Your task to perform on an android device: toggle show notifications on the lock screen Image 0: 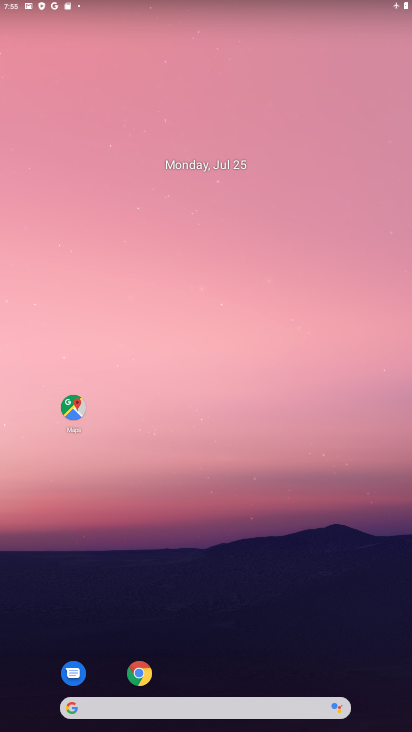
Step 0: drag from (177, 677) to (175, 90)
Your task to perform on an android device: toggle show notifications on the lock screen Image 1: 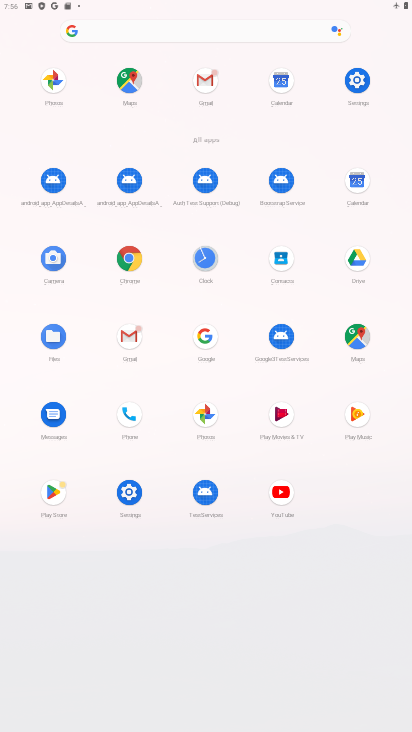
Step 1: click (118, 479)
Your task to perform on an android device: toggle show notifications on the lock screen Image 2: 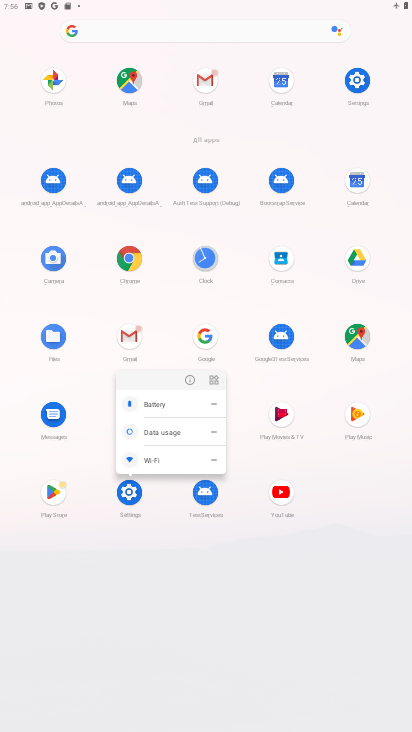
Step 2: click (184, 380)
Your task to perform on an android device: toggle show notifications on the lock screen Image 3: 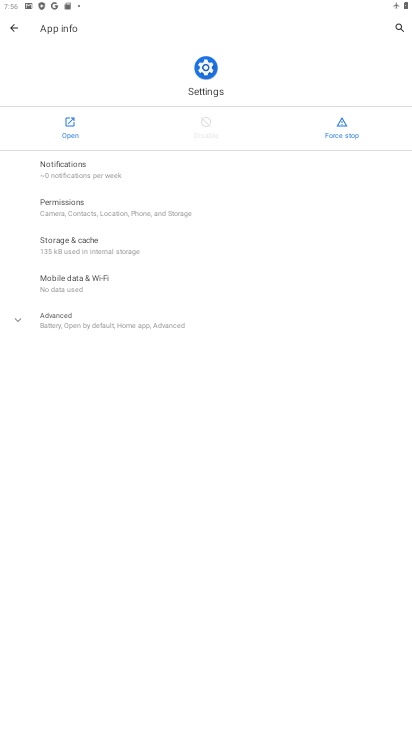
Step 3: click (50, 109)
Your task to perform on an android device: toggle show notifications on the lock screen Image 4: 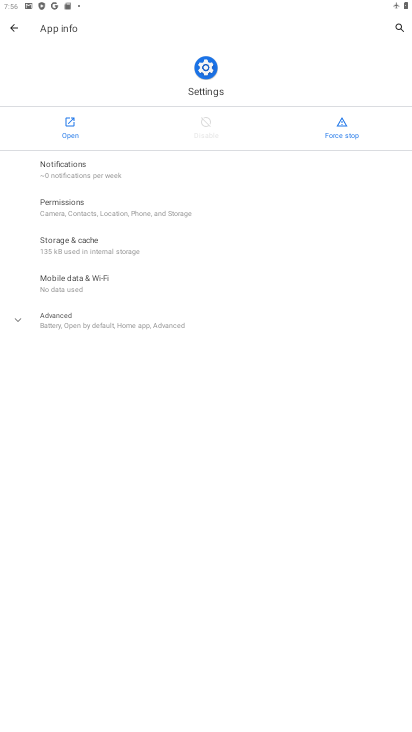
Step 4: click (49, 110)
Your task to perform on an android device: toggle show notifications on the lock screen Image 5: 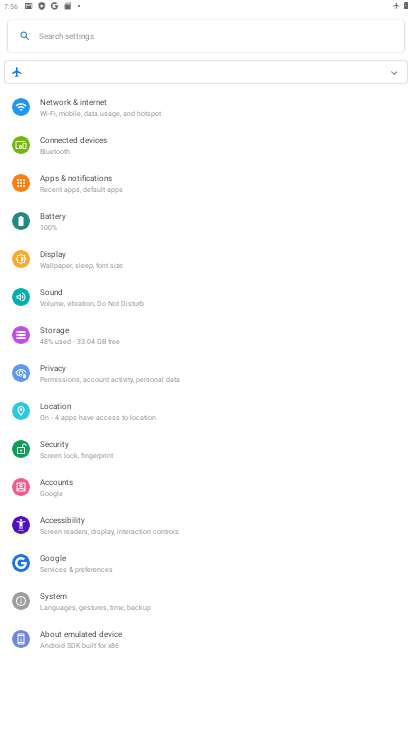
Step 5: click (82, 187)
Your task to perform on an android device: toggle show notifications on the lock screen Image 6: 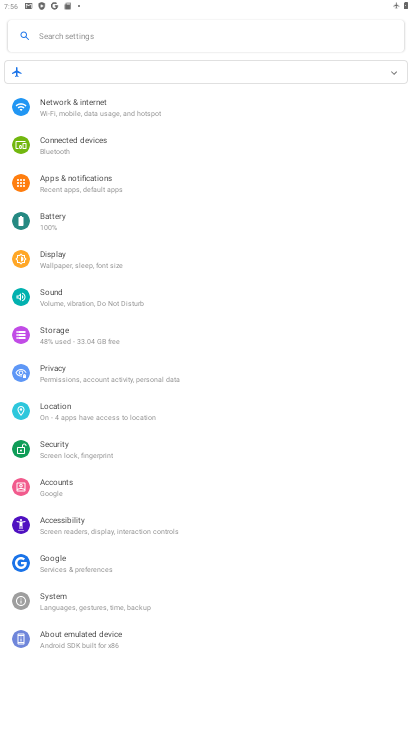
Step 6: click (82, 187)
Your task to perform on an android device: toggle show notifications on the lock screen Image 7: 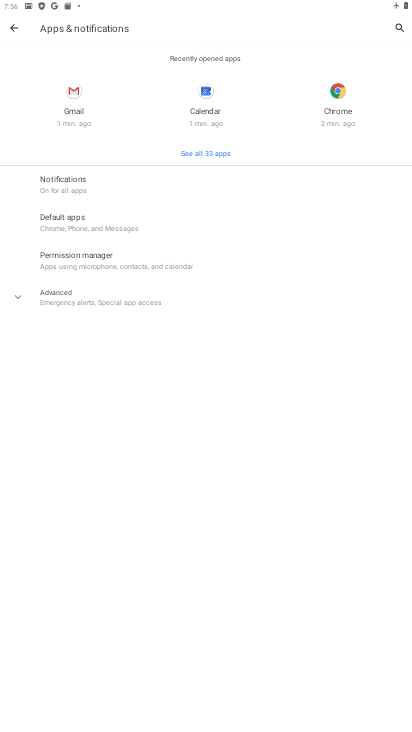
Step 7: click (113, 178)
Your task to perform on an android device: toggle show notifications on the lock screen Image 8: 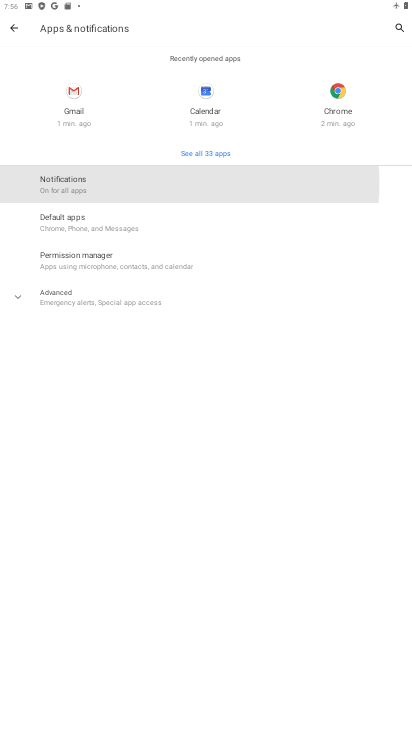
Step 8: click (113, 178)
Your task to perform on an android device: toggle show notifications on the lock screen Image 9: 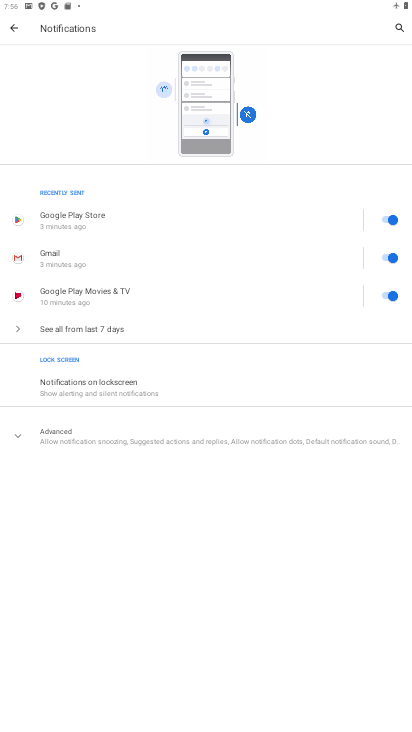
Step 9: click (106, 387)
Your task to perform on an android device: toggle show notifications on the lock screen Image 10: 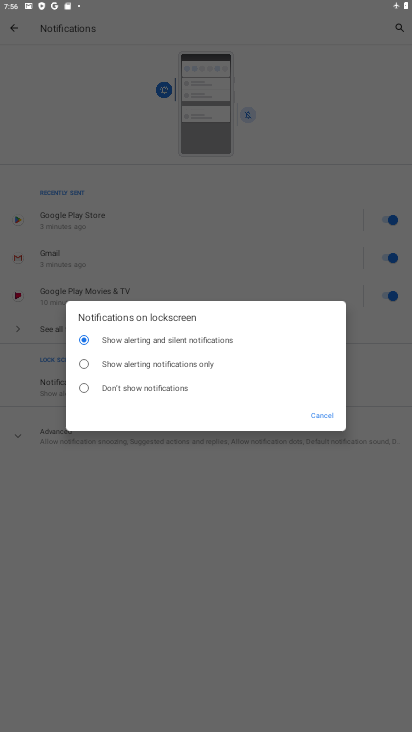
Step 10: click (92, 358)
Your task to perform on an android device: toggle show notifications on the lock screen Image 11: 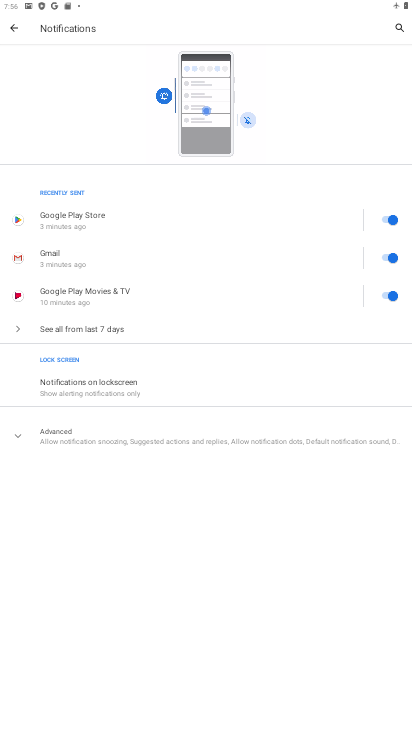
Step 11: task complete